Your task to perform on an android device: set an alarm Image 0: 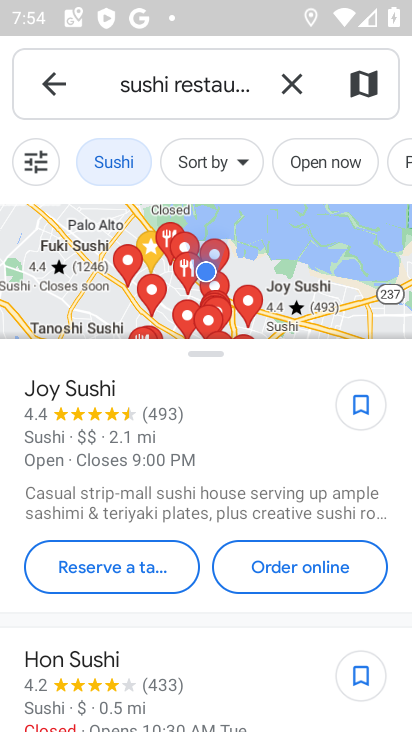
Step 0: press home button
Your task to perform on an android device: set an alarm Image 1: 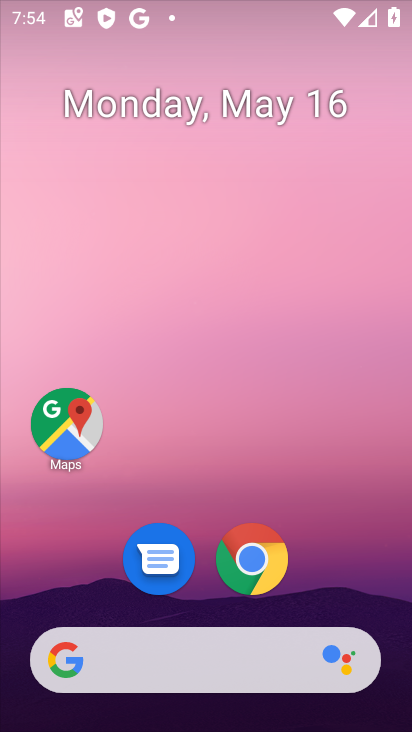
Step 1: drag from (327, 576) to (328, 187)
Your task to perform on an android device: set an alarm Image 2: 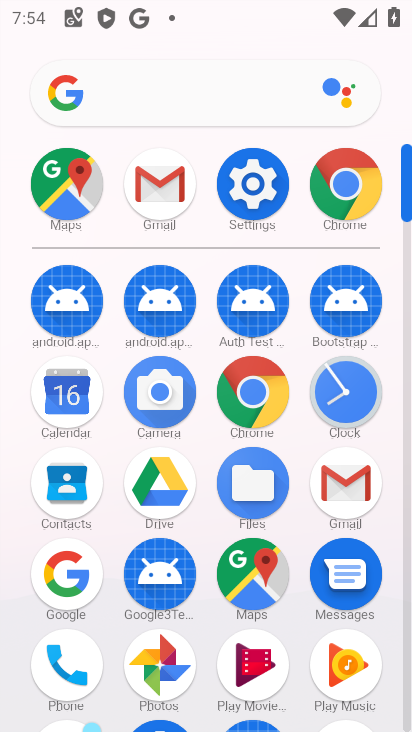
Step 2: click (357, 412)
Your task to perform on an android device: set an alarm Image 3: 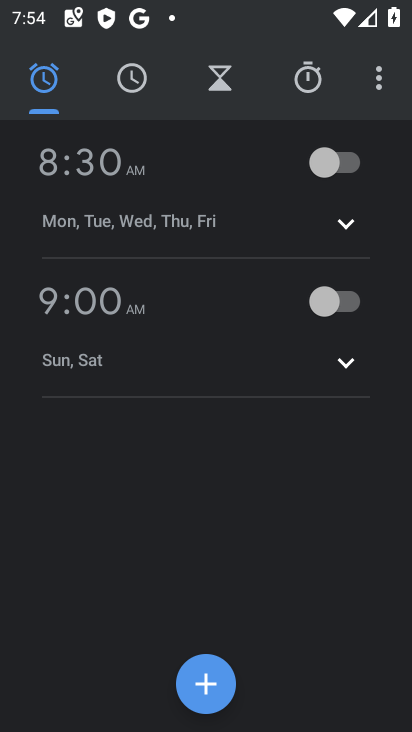
Step 3: click (209, 689)
Your task to perform on an android device: set an alarm Image 4: 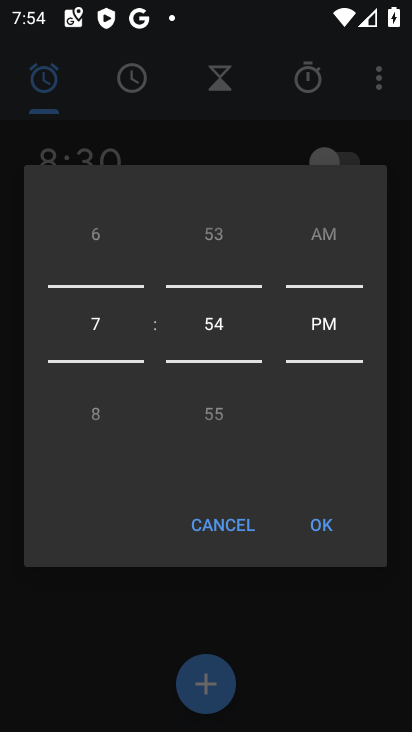
Step 4: click (319, 533)
Your task to perform on an android device: set an alarm Image 5: 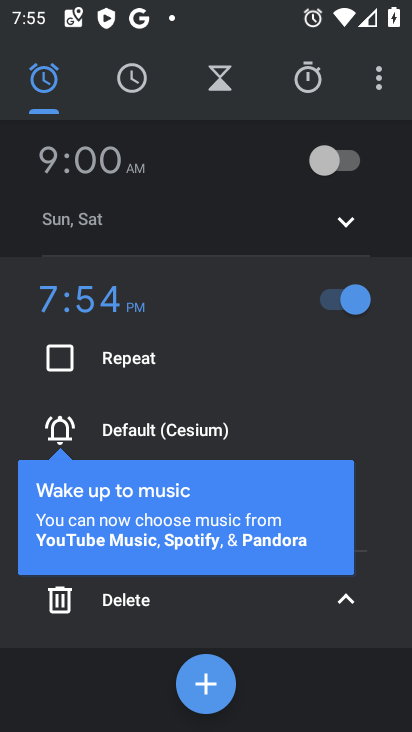
Step 5: task complete